Your task to perform on an android device: check battery use Image 0: 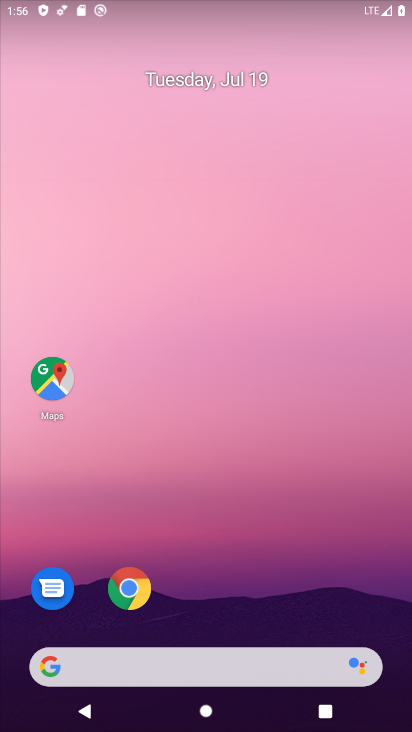
Step 0: drag from (249, 586) to (118, 5)
Your task to perform on an android device: check battery use Image 1: 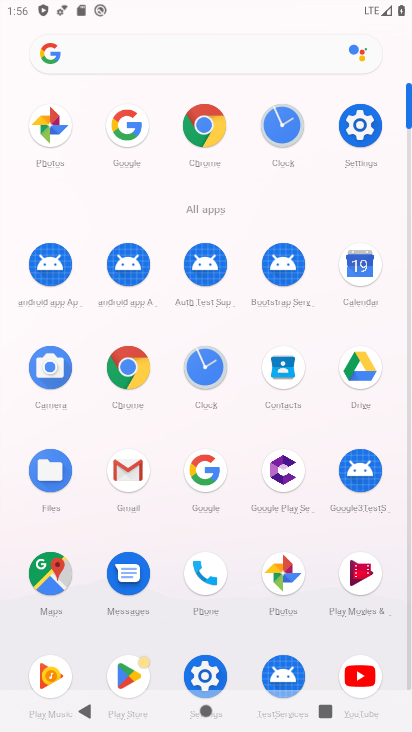
Step 1: click (358, 127)
Your task to perform on an android device: check battery use Image 2: 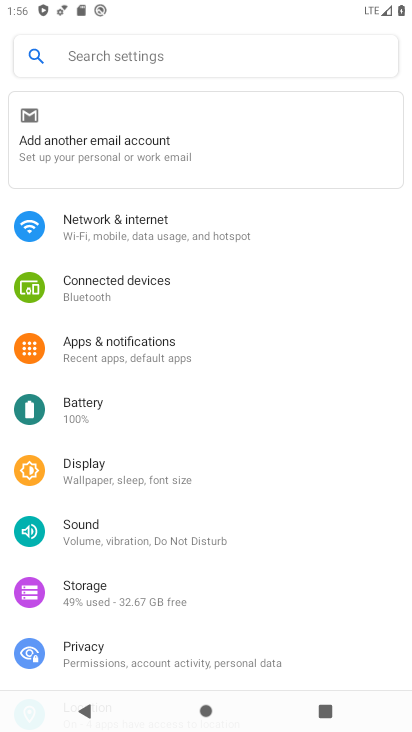
Step 2: drag from (266, 654) to (255, 280)
Your task to perform on an android device: check battery use Image 3: 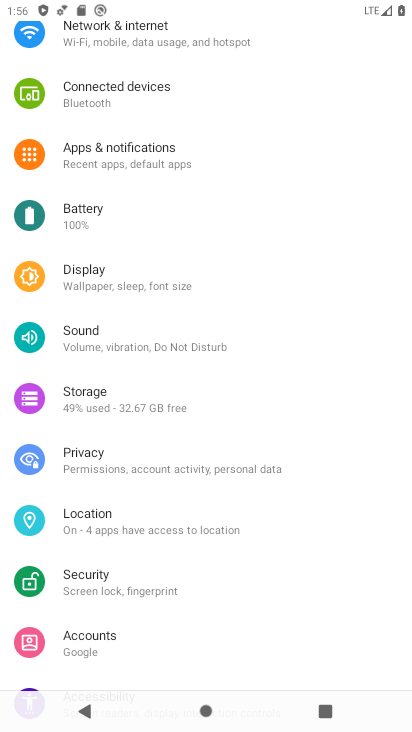
Step 3: click (77, 204)
Your task to perform on an android device: check battery use Image 4: 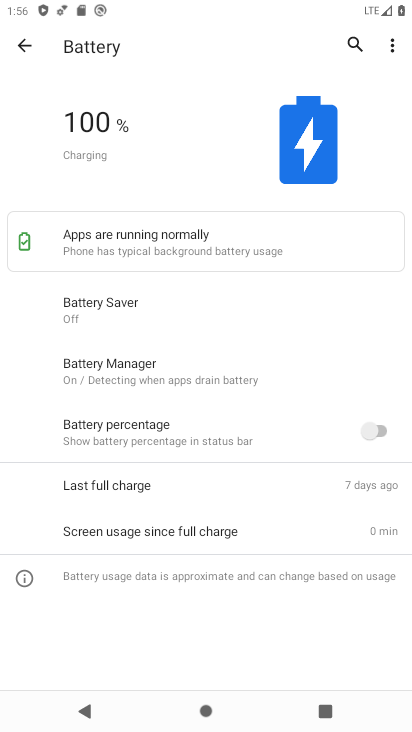
Step 4: task complete